Your task to perform on an android device: Open Amazon Image 0: 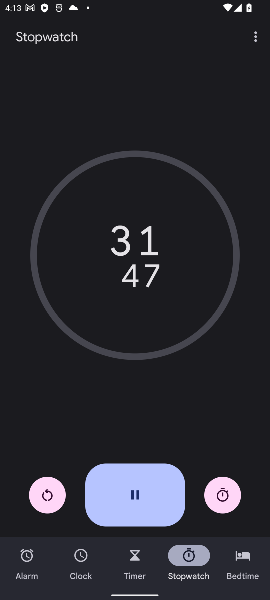
Step 0: press home button
Your task to perform on an android device: Open Amazon Image 1: 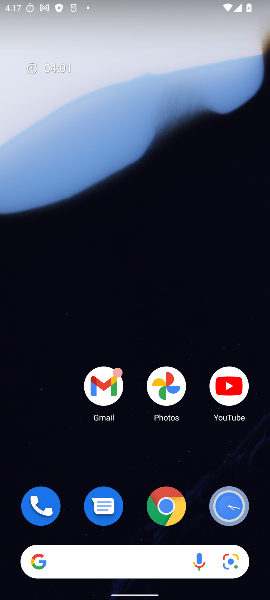
Step 1: drag from (183, 544) to (91, 8)
Your task to perform on an android device: Open Amazon Image 2: 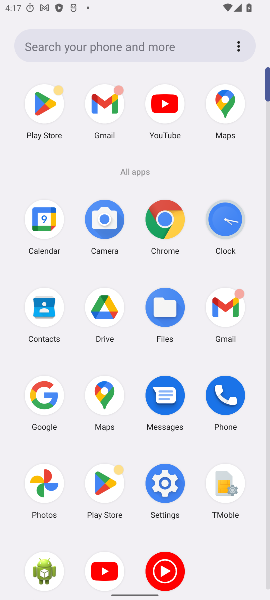
Step 2: click (167, 209)
Your task to perform on an android device: Open Amazon Image 3: 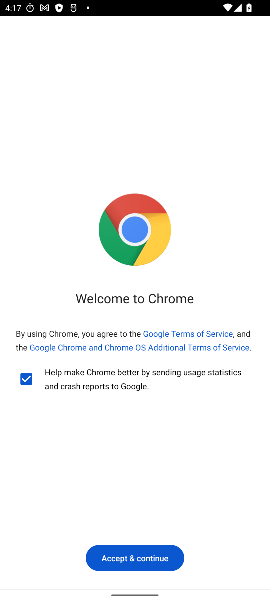
Step 3: click (118, 557)
Your task to perform on an android device: Open Amazon Image 4: 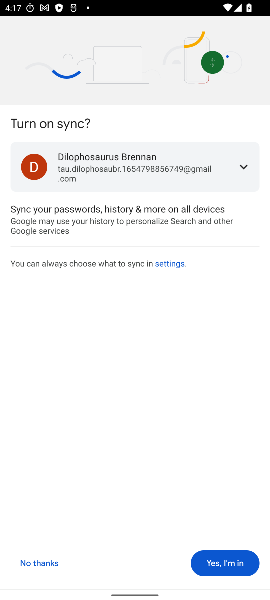
Step 4: click (55, 561)
Your task to perform on an android device: Open Amazon Image 5: 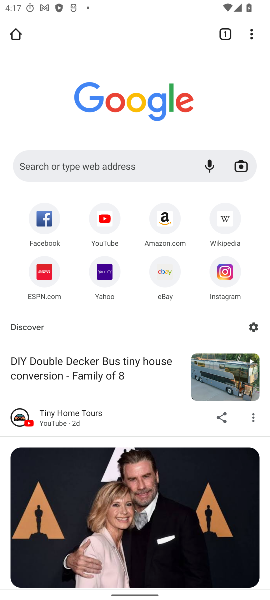
Step 5: click (161, 222)
Your task to perform on an android device: Open Amazon Image 6: 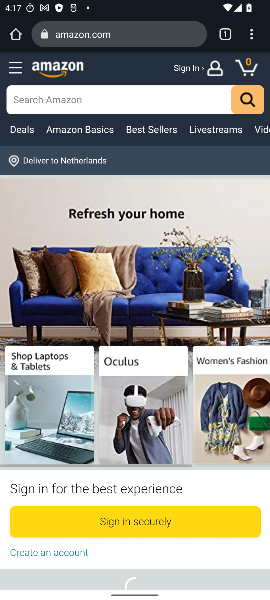
Step 6: task complete